Your task to perform on an android device: open app "Fetch Rewards" (install if not already installed) and enter user name: "Westwood@yahoo.com" and password: "qualifying" Image 0: 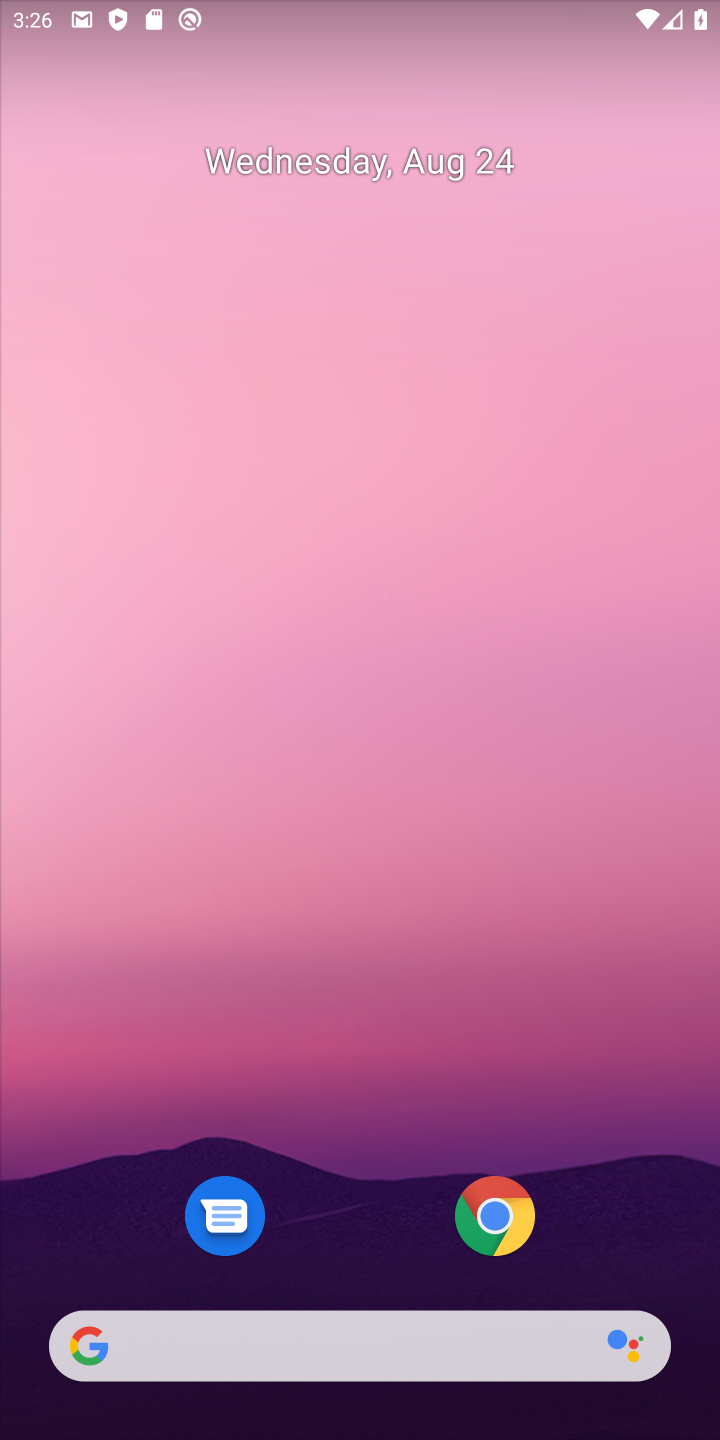
Step 0: drag from (497, 632) to (593, 39)
Your task to perform on an android device: open app "Fetch Rewards" (install if not already installed) and enter user name: "Westwood@yahoo.com" and password: "qualifying" Image 1: 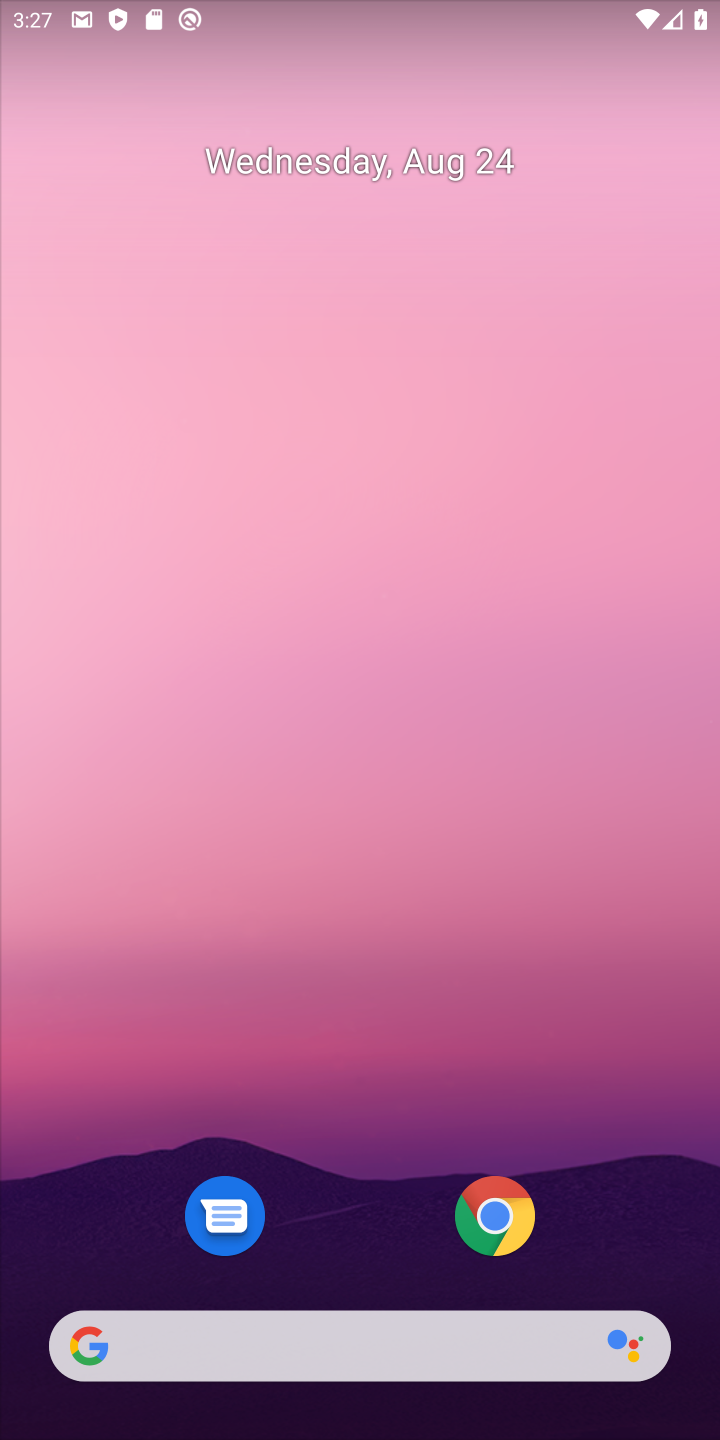
Step 1: drag from (431, 833) to (457, 167)
Your task to perform on an android device: open app "Fetch Rewards" (install if not already installed) and enter user name: "Westwood@yahoo.com" and password: "qualifying" Image 2: 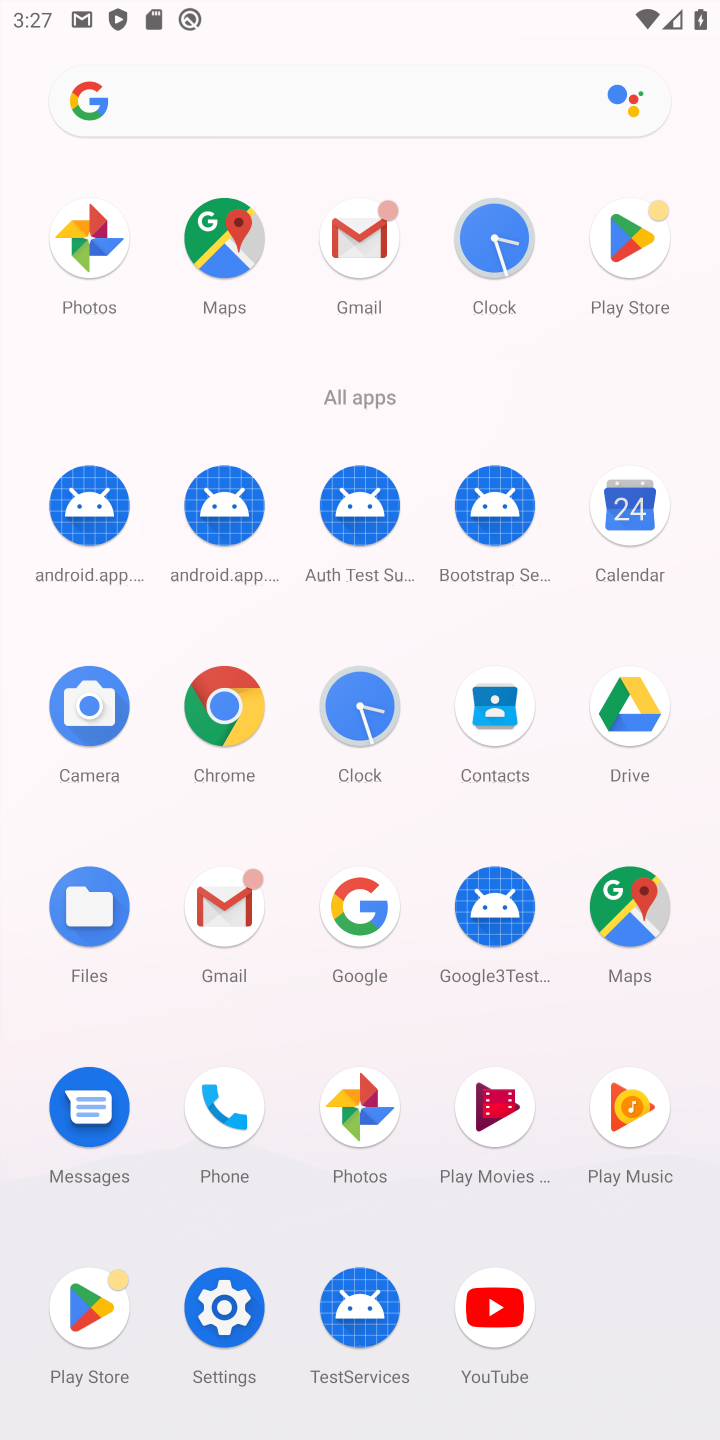
Step 2: click (643, 228)
Your task to perform on an android device: open app "Fetch Rewards" (install if not already installed) and enter user name: "Westwood@yahoo.com" and password: "qualifying" Image 3: 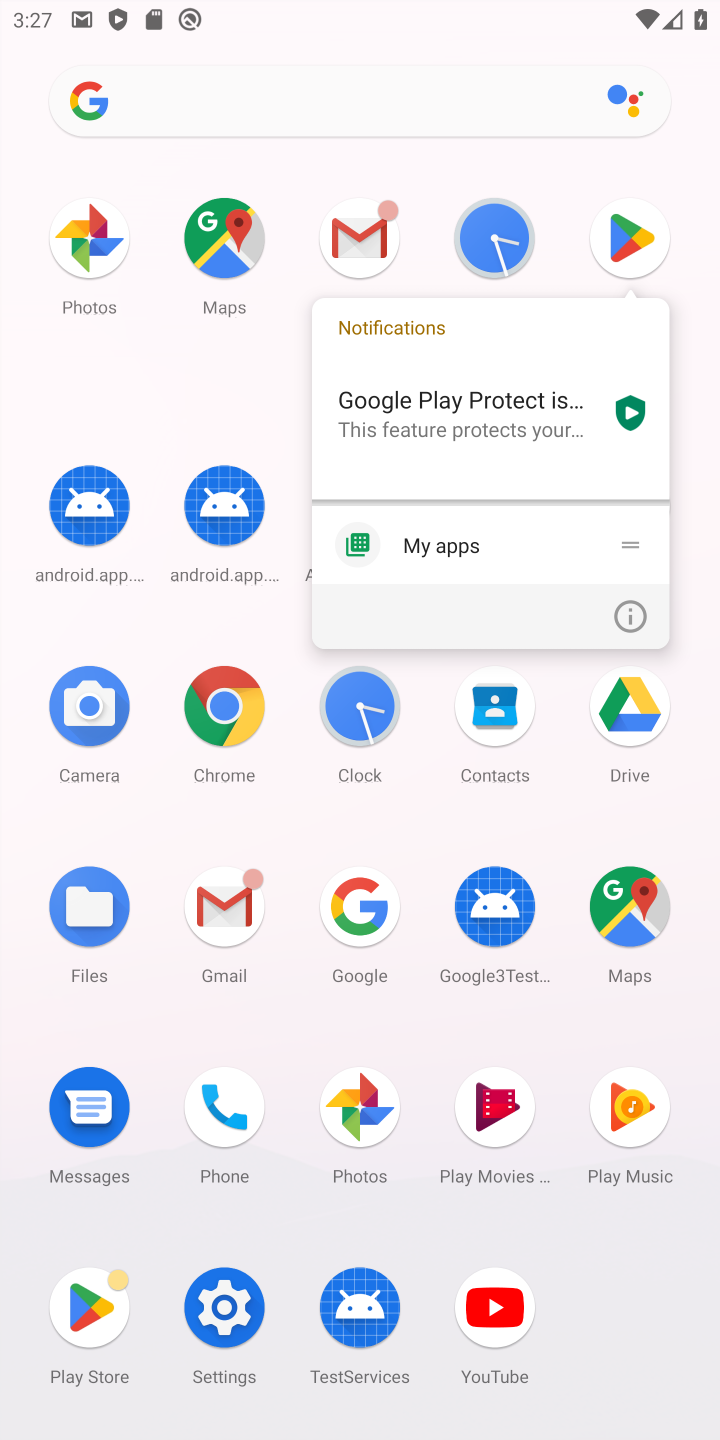
Step 3: click (626, 216)
Your task to perform on an android device: open app "Fetch Rewards" (install if not already installed) and enter user name: "Westwood@yahoo.com" and password: "qualifying" Image 4: 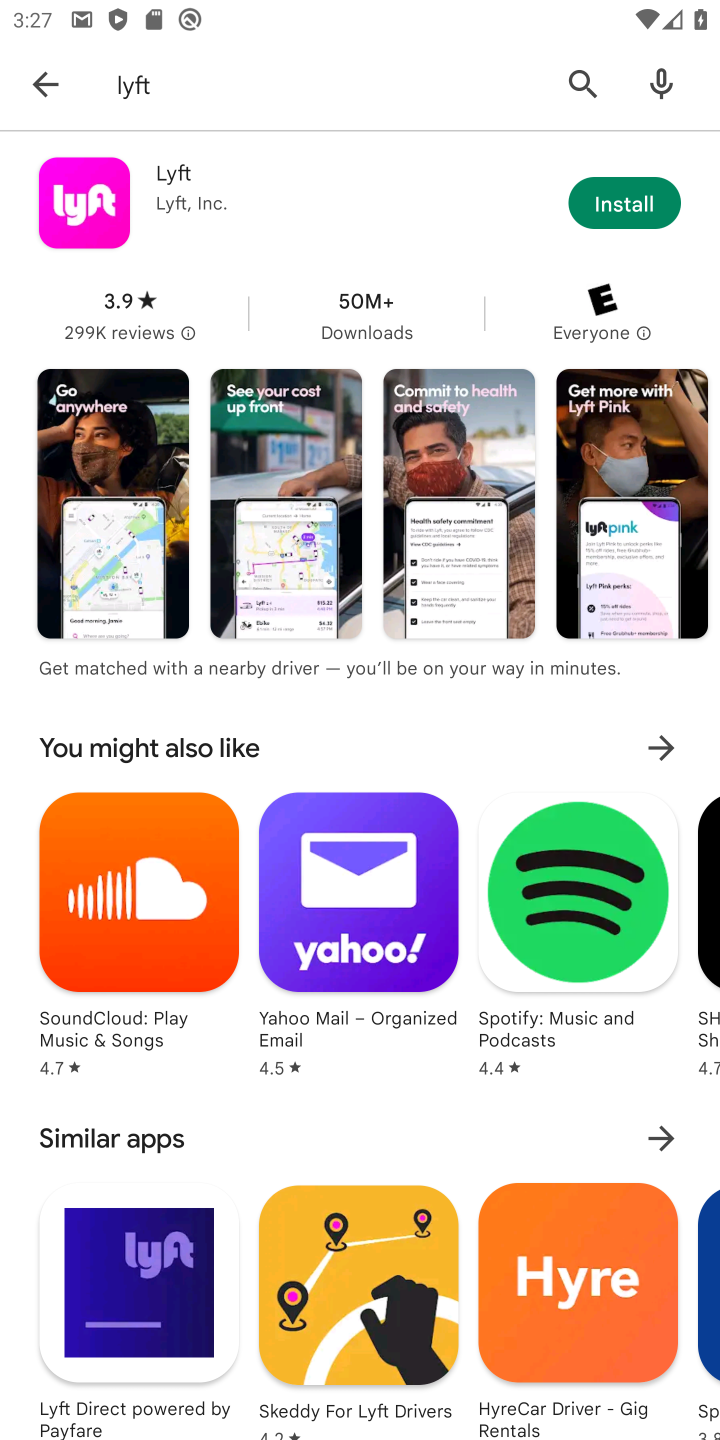
Step 4: click (553, 72)
Your task to perform on an android device: open app "Fetch Rewards" (install if not already installed) and enter user name: "Westwood@yahoo.com" and password: "qualifying" Image 5: 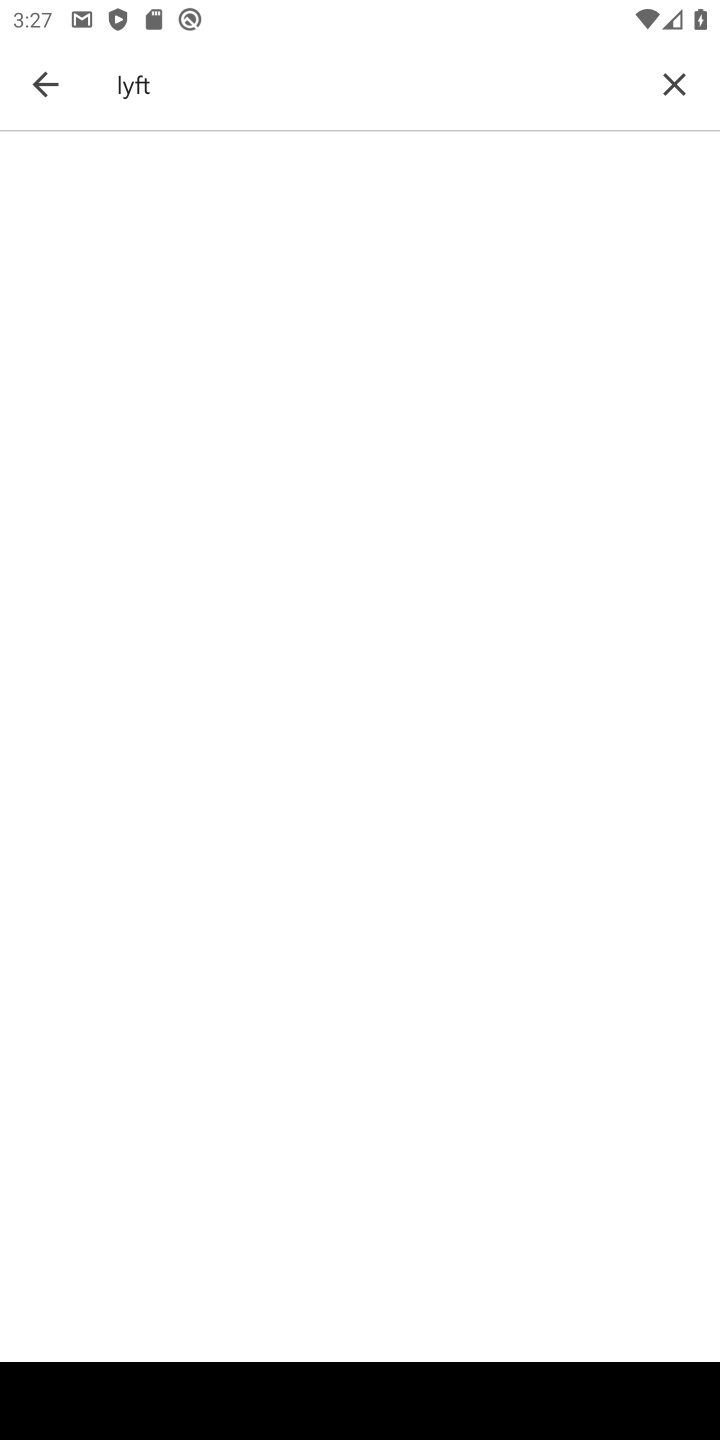
Step 5: click (678, 89)
Your task to perform on an android device: open app "Fetch Rewards" (install if not already installed) and enter user name: "Westwood@yahoo.com" and password: "qualifying" Image 6: 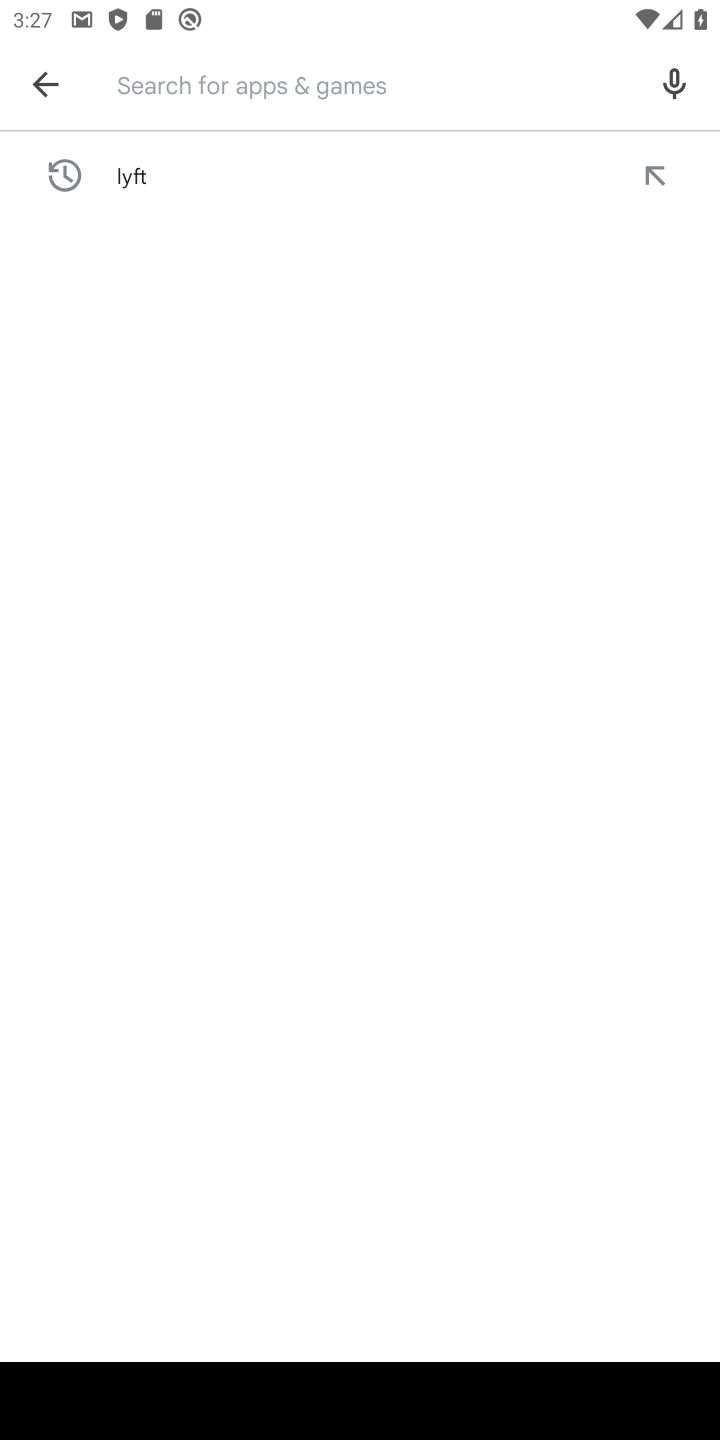
Step 6: click (290, 63)
Your task to perform on an android device: open app "Fetch Rewards" (install if not already installed) and enter user name: "Westwood@yahoo.com" and password: "qualifying" Image 7: 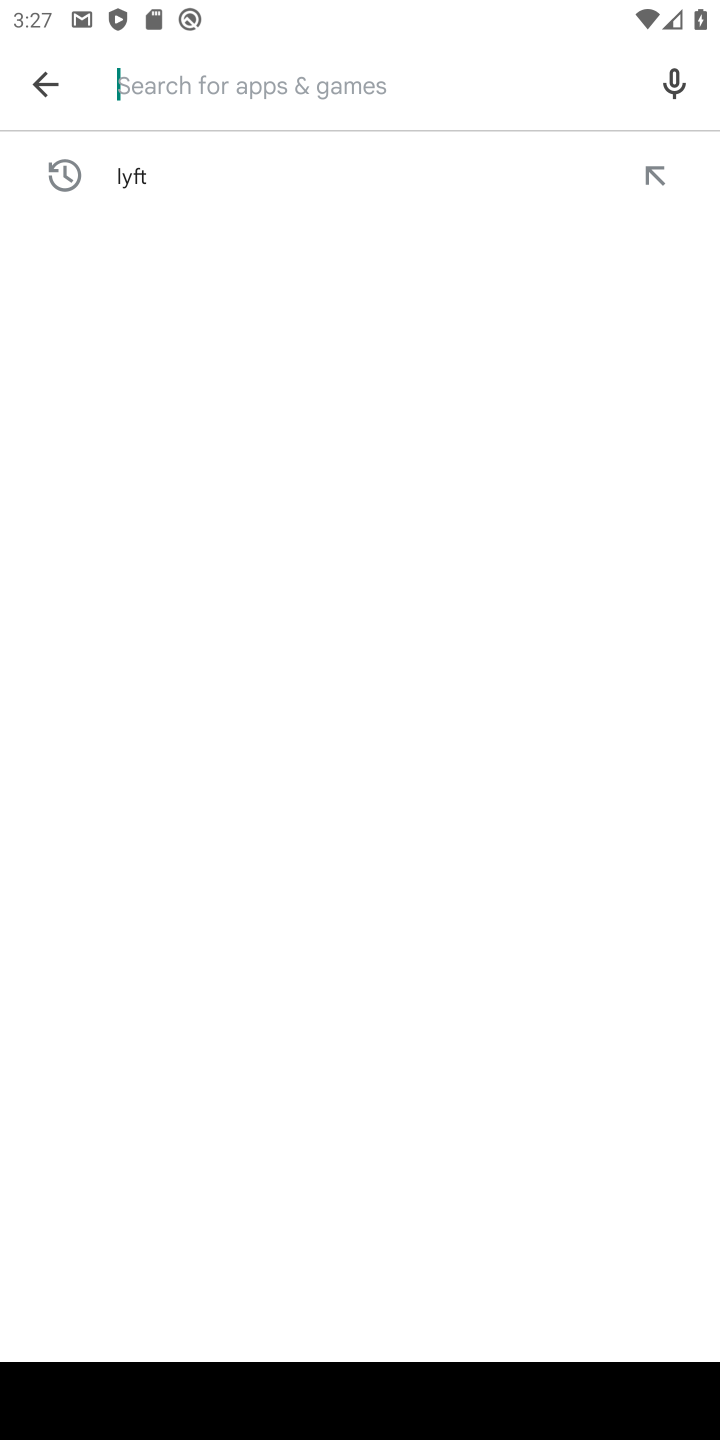
Step 7: type "Fetch Rewards"
Your task to perform on an android device: open app "Fetch Rewards" (install if not already installed) and enter user name: "Westwood@yahoo.com" and password: "qualifying" Image 8: 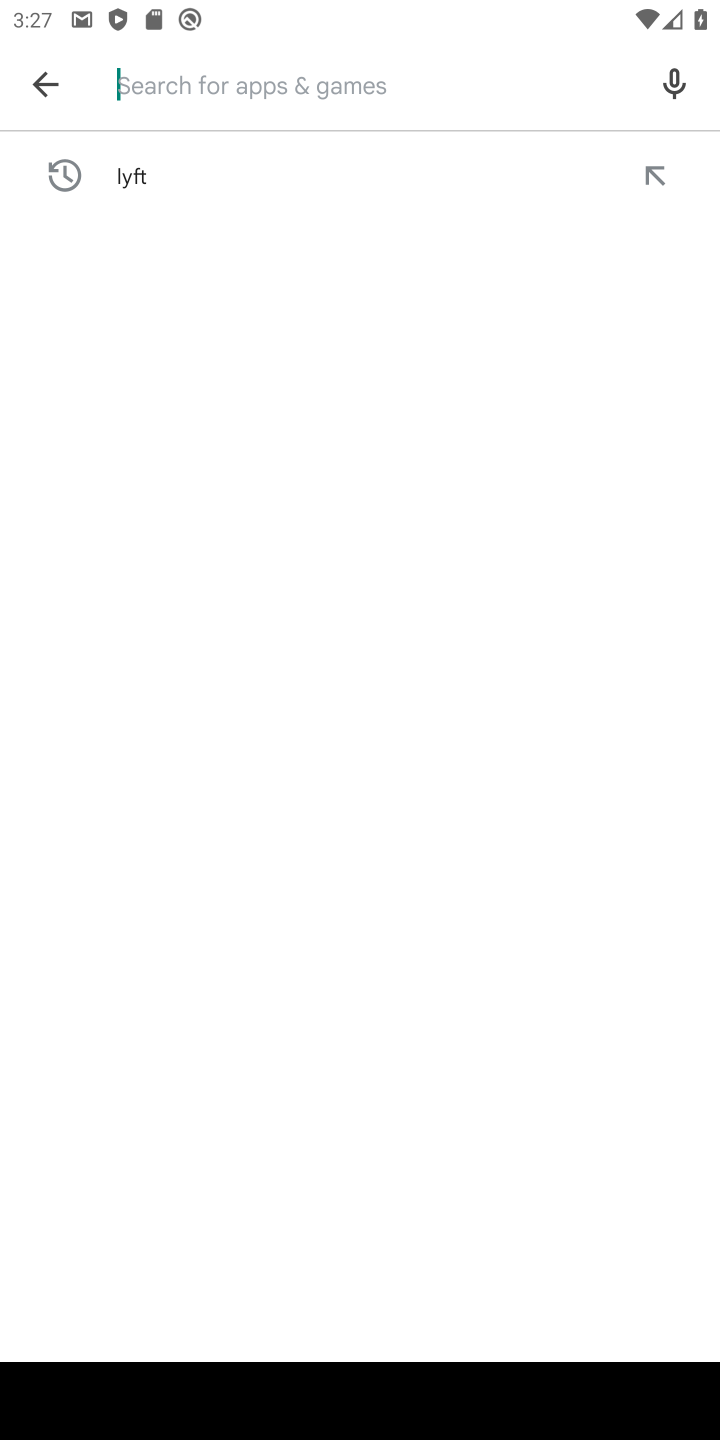
Step 8: click (461, 1066)
Your task to perform on an android device: open app "Fetch Rewards" (install if not already installed) and enter user name: "Westwood@yahoo.com" and password: "qualifying" Image 9: 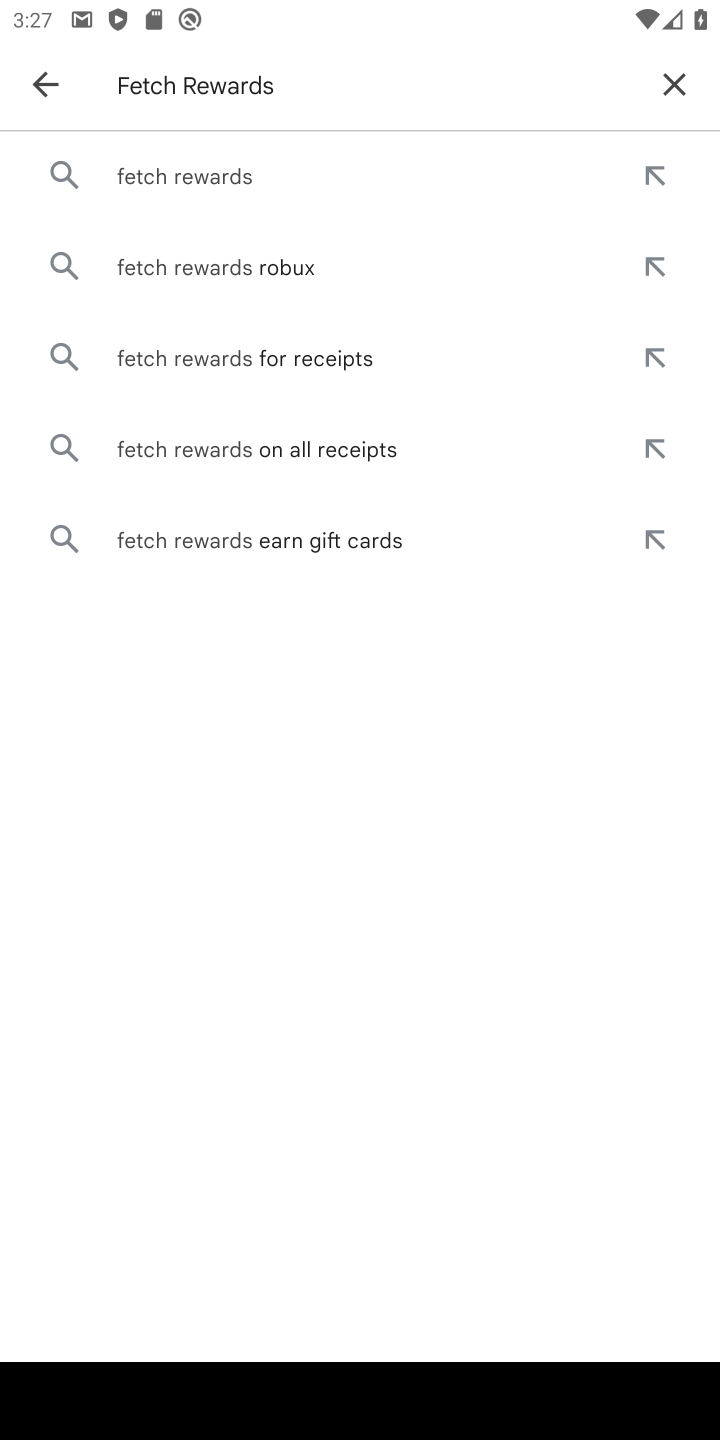
Step 9: click (241, 165)
Your task to perform on an android device: open app "Fetch Rewards" (install if not already installed) and enter user name: "Westwood@yahoo.com" and password: "qualifying" Image 10: 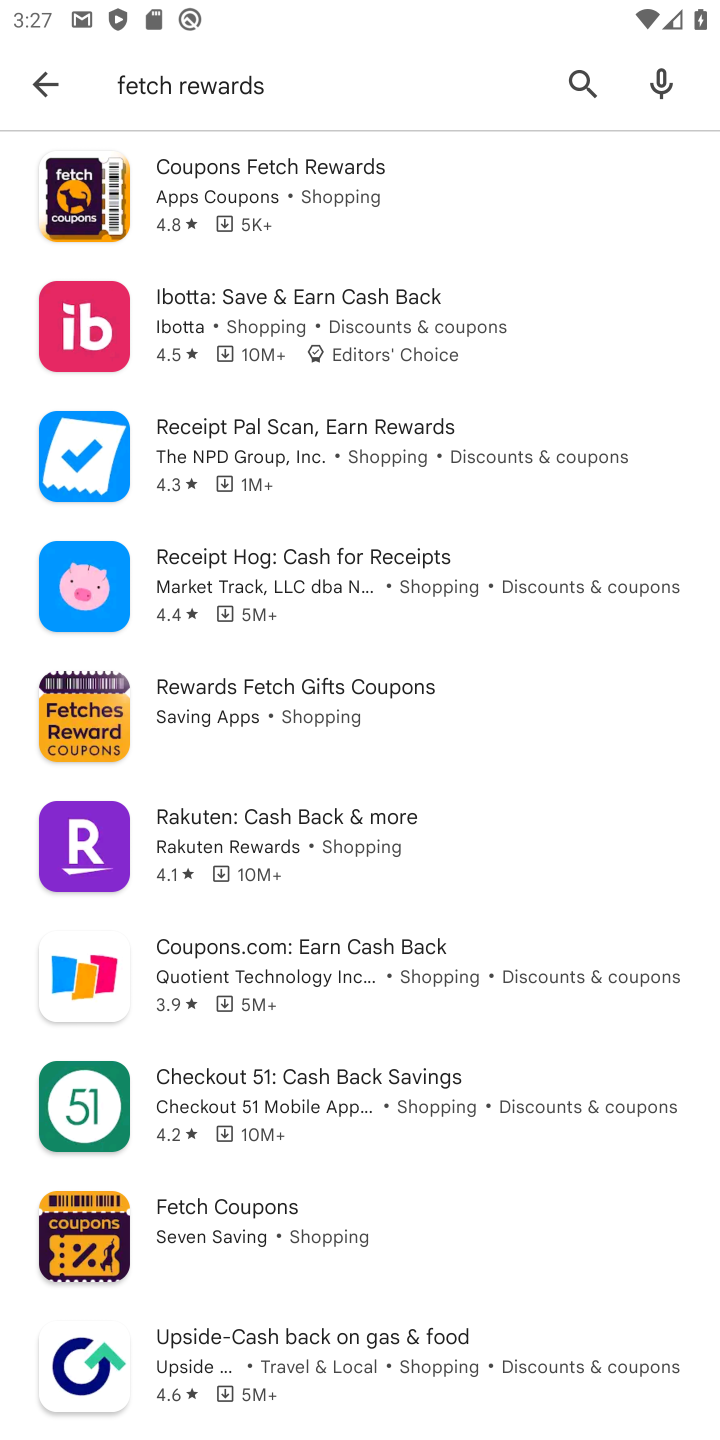
Step 10: task complete